Your task to perform on an android device: check data usage Image 0: 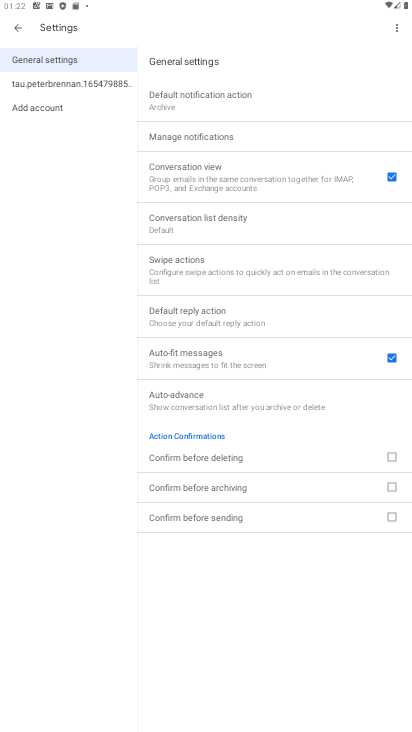
Step 0: press home button
Your task to perform on an android device: check data usage Image 1: 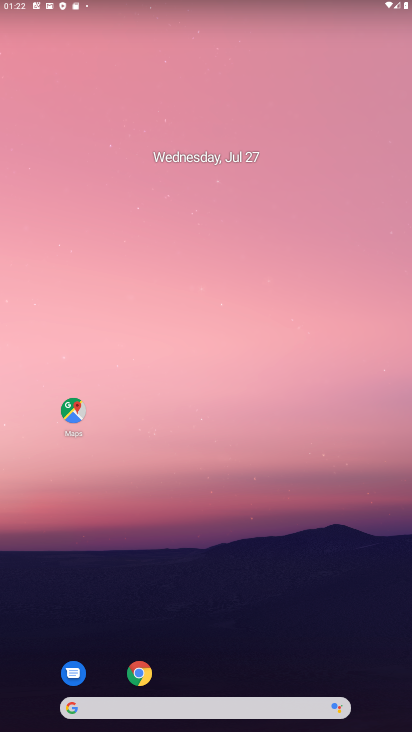
Step 1: drag from (215, 641) to (241, 245)
Your task to perform on an android device: check data usage Image 2: 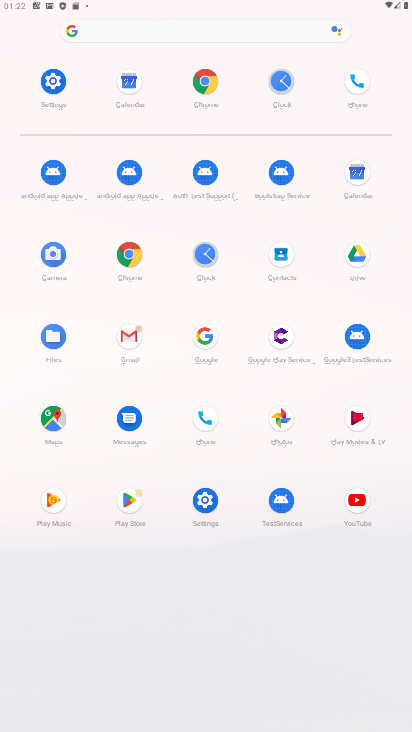
Step 2: click (49, 77)
Your task to perform on an android device: check data usage Image 3: 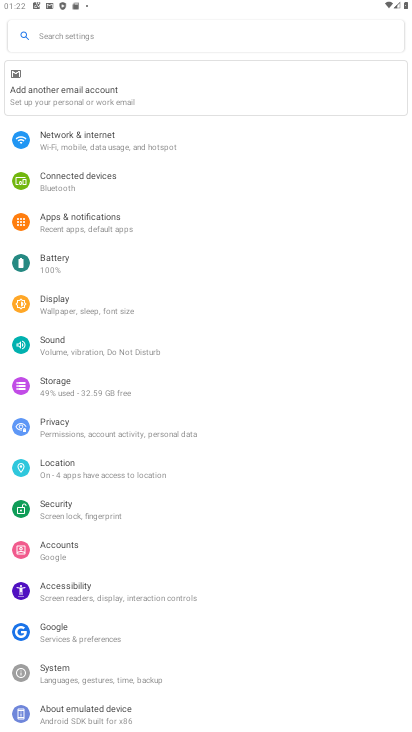
Step 3: click (131, 135)
Your task to perform on an android device: check data usage Image 4: 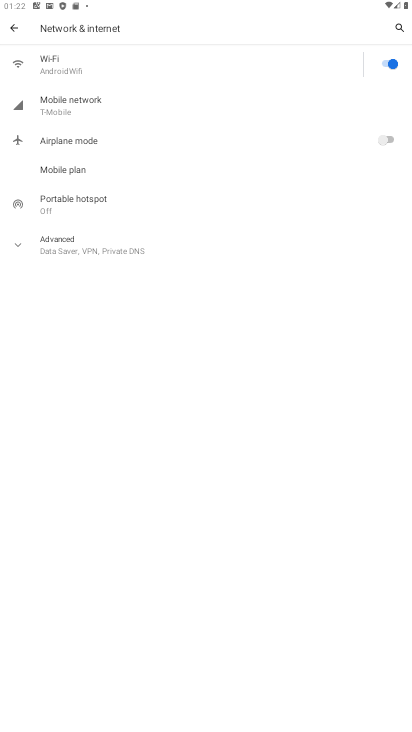
Step 4: click (101, 111)
Your task to perform on an android device: check data usage Image 5: 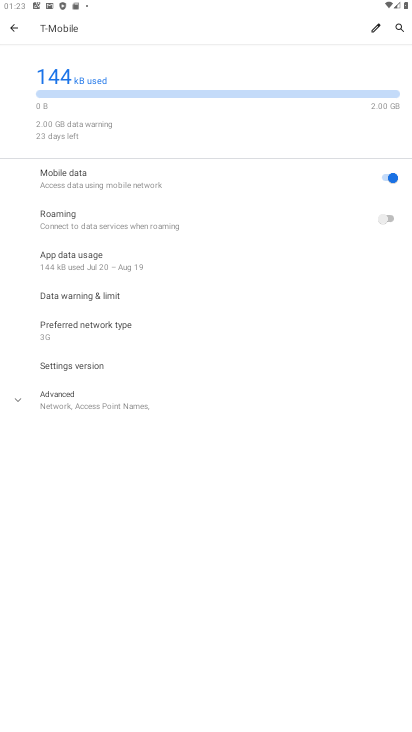
Step 5: task complete